Your task to perform on an android device: turn off notifications in google photos Image 0: 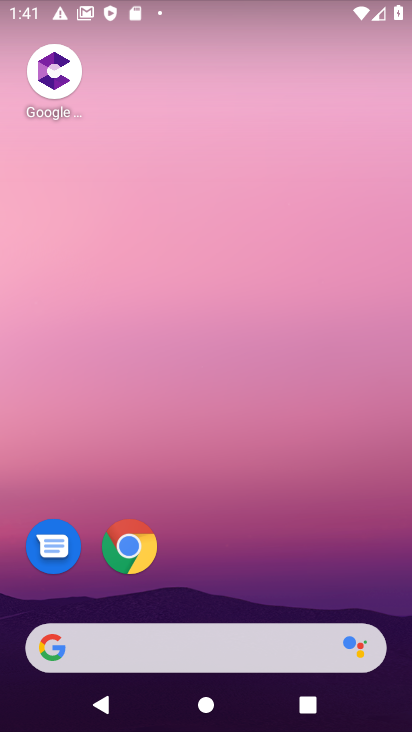
Step 0: drag from (222, 609) to (205, 60)
Your task to perform on an android device: turn off notifications in google photos Image 1: 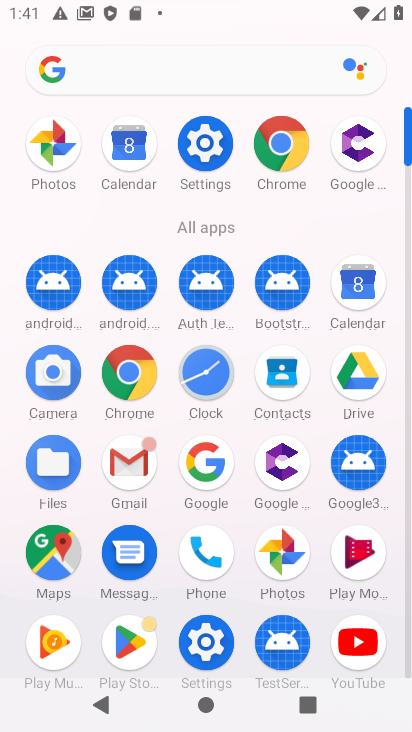
Step 1: click (44, 154)
Your task to perform on an android device: turn off notifications in google photos Image 2: 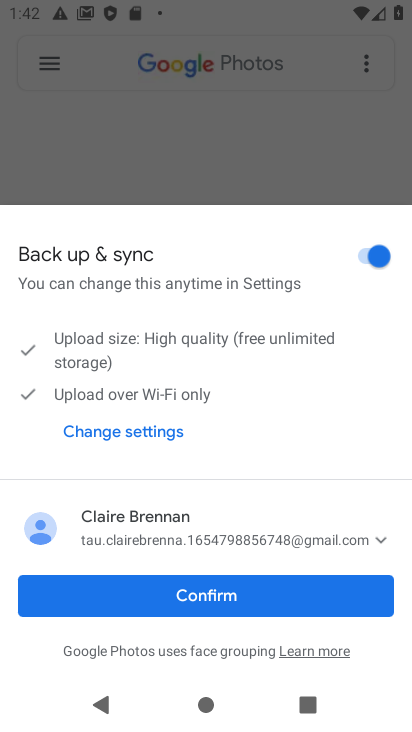
Step 2: click (253, 592)
Your task to perform on an android device: turn off notifications in google photos Image 3: 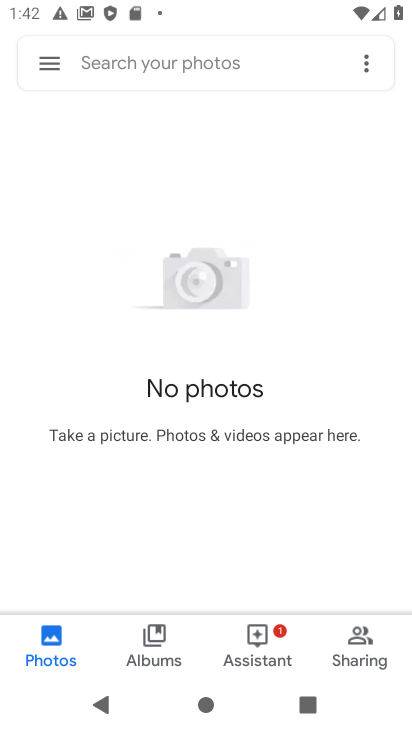
Step 3: click (48, 64)
Your task to perform on an android device: turn off notifications in google photos Image 4: 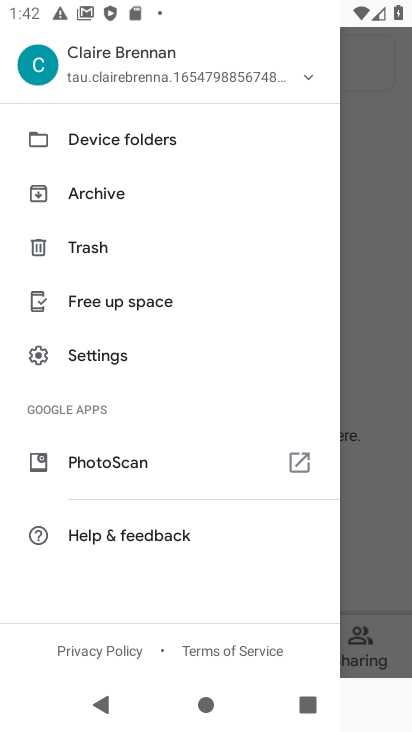
Step 4: click (107, 346)
Your task to perform on an android device: turn off notifications in google photos Image 5: 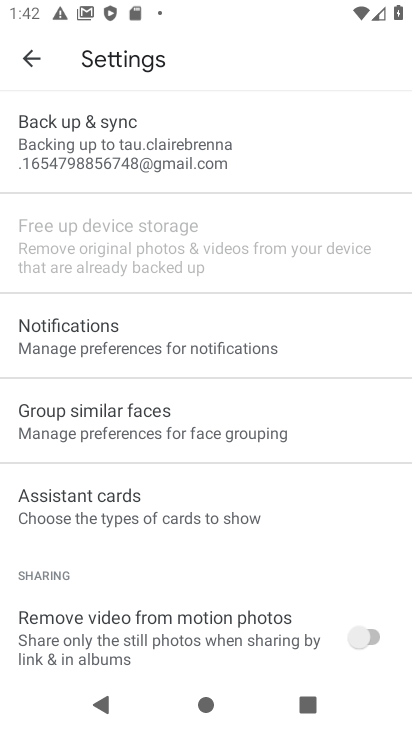
Step 5: click (162, 356)
Your task to perform on an android device: turn off notifications in google photos Image 6: 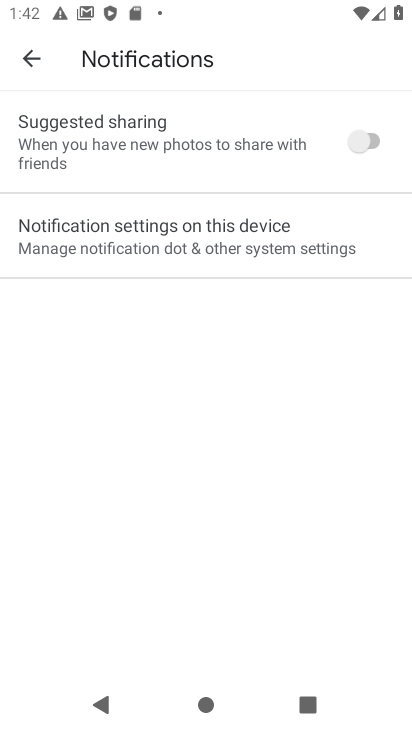
Step 6: click (258, 249)
Your task to perform on an android device: turn off notifications in google photos Image 7: 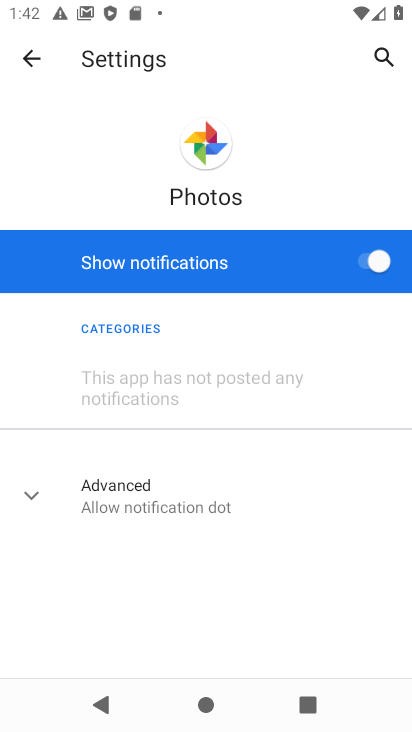
Step 7: click (350, 254)
Your task to perform on an android device: turn off notifications in google photos Image 8: 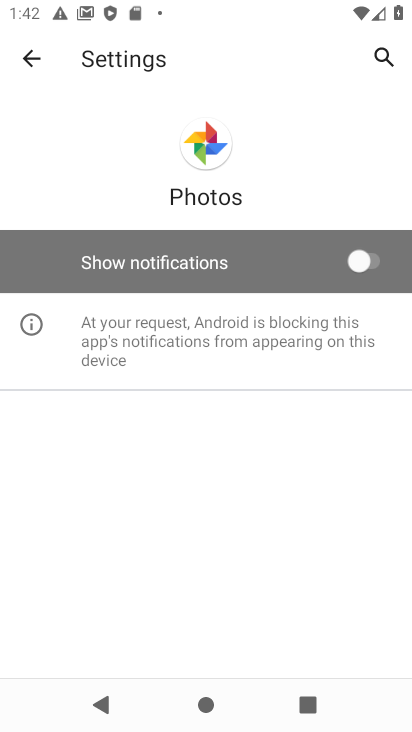
Step 8: task complete